Your task to perform on an android device: What is the recent news? Image 0: 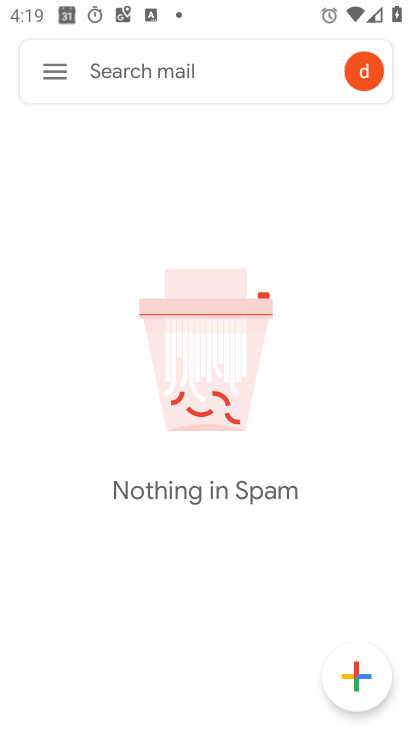
Step 0: press home button
Your task to perform on an android device: What is the recent news? Image 1: 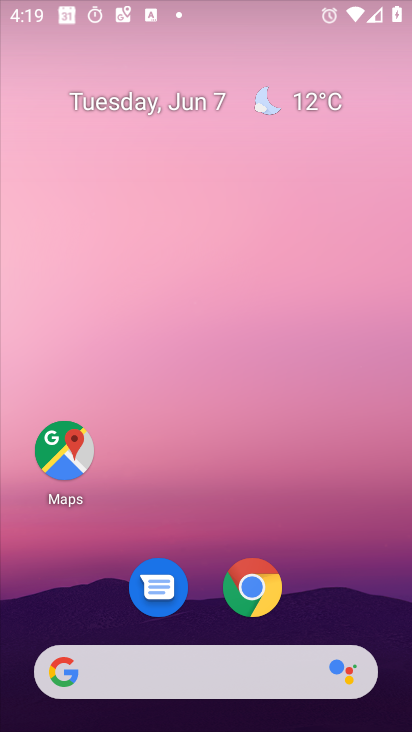
Step 1: drag from (223, 643) to (341, 52)
Your task to perform on an android device: What is the recent news? Image 2: 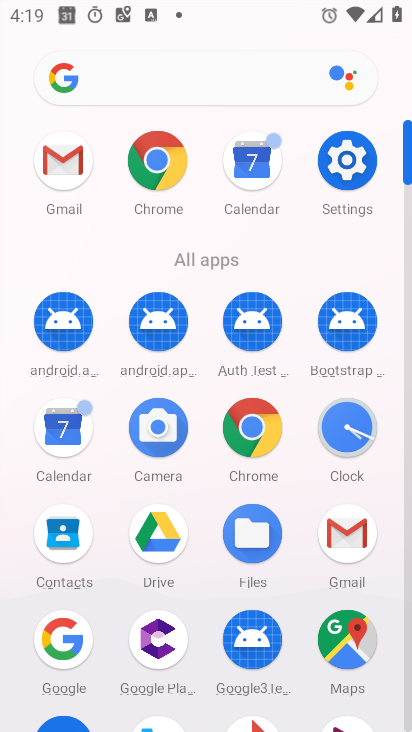
Step 2: click (69, 648)
Your task to perform on an android device: What is the recent news? Image 3: 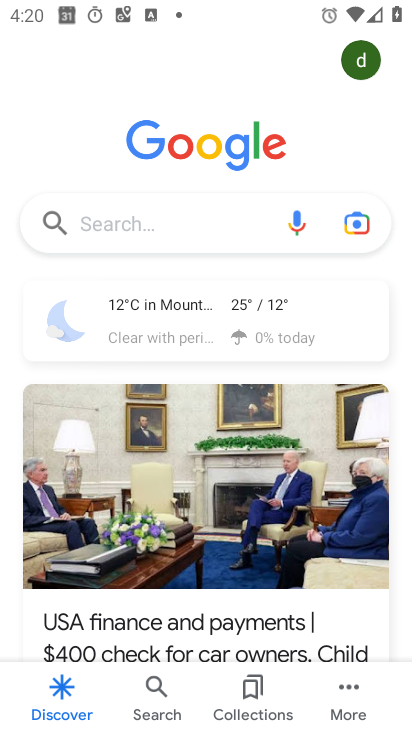
Step 3: click (113, 214)
Your task to perform on an android device: What is the recent news? Image 4: 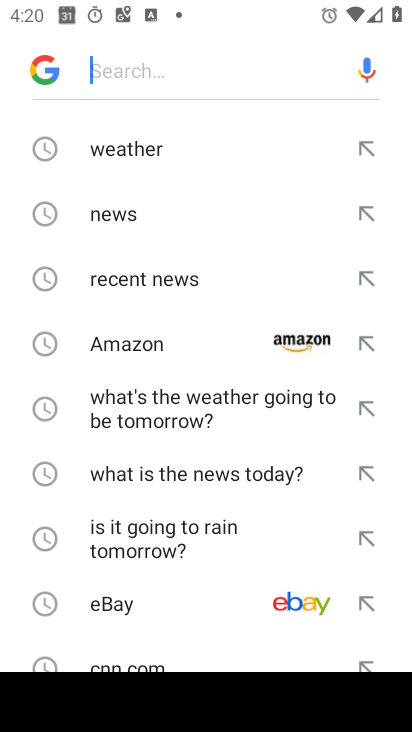
Step 4: click (188, 282)
Your task to perform on an android device: What is the recent news? Image 5: 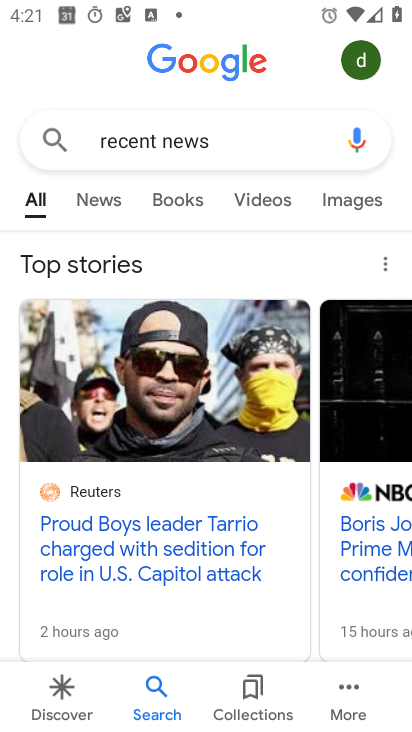
Step 5: click (83, 214)
Your task to perform on an android device: What is the recent news? Image 6: 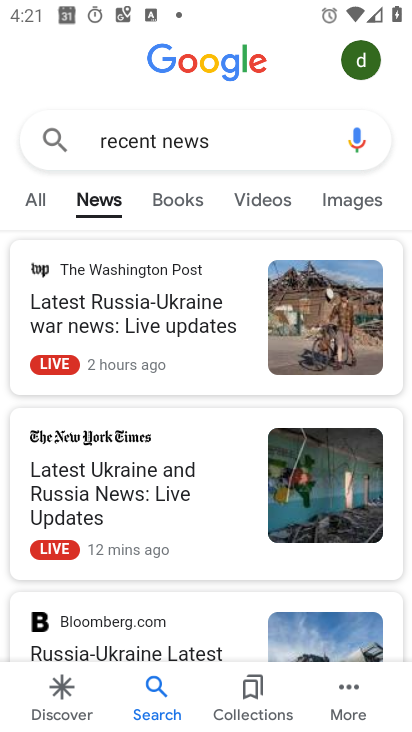
Step 6: task complete